Your task to perform on an android device: Go to Maps Image 0: 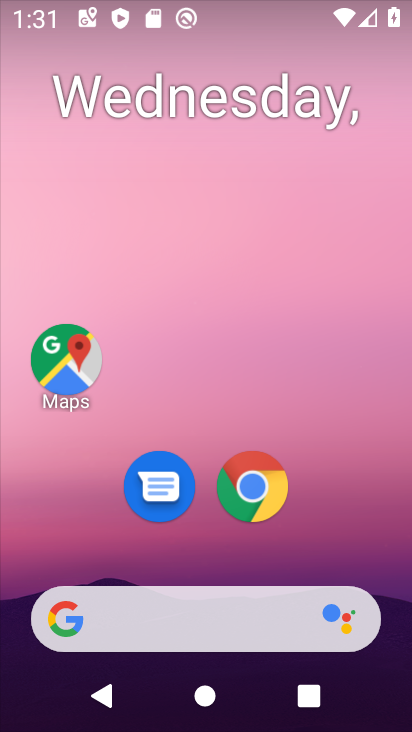
Step 0: click (65, 363)
Your task to perform on an android device: Go to Maps Image 1: 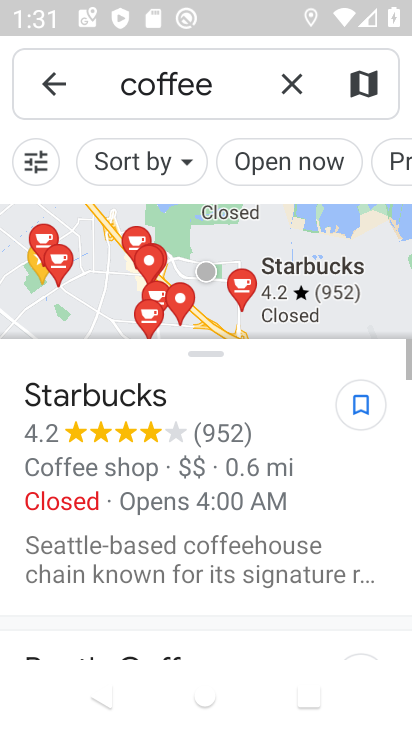
Step 1: task complete